Your task to perform on an android device: turn off notifications settings in the gmail app Image 0: 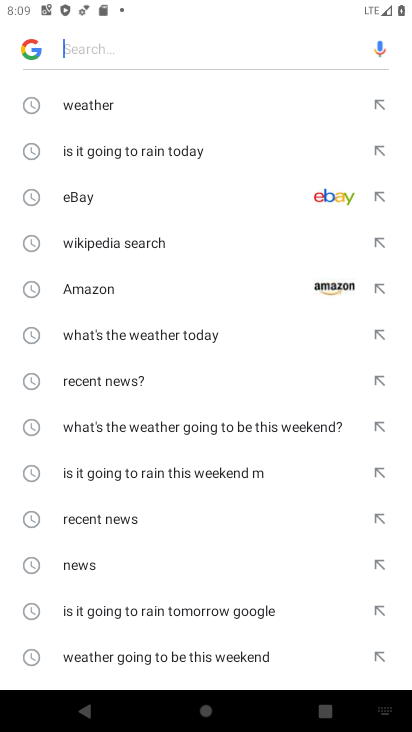
Step 0: press home button
Your task to perform on an android device: turn off notifications settings in the gmail app Image 1: 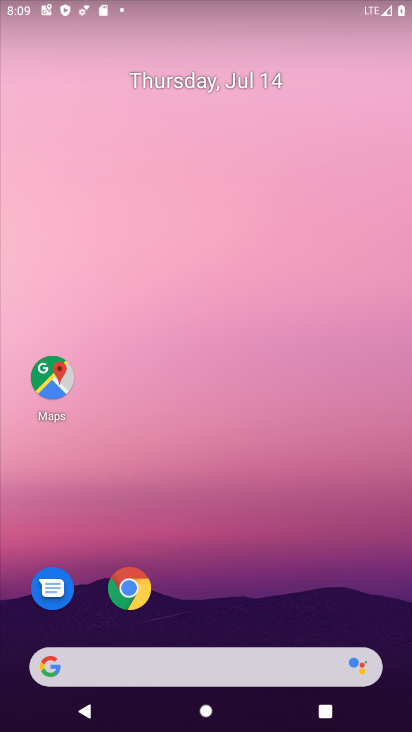
Step 1: drag from (392, 646) to (185, 59)
Your task to perform on an android device: turn off notifications settings in the gmail app Image 2: 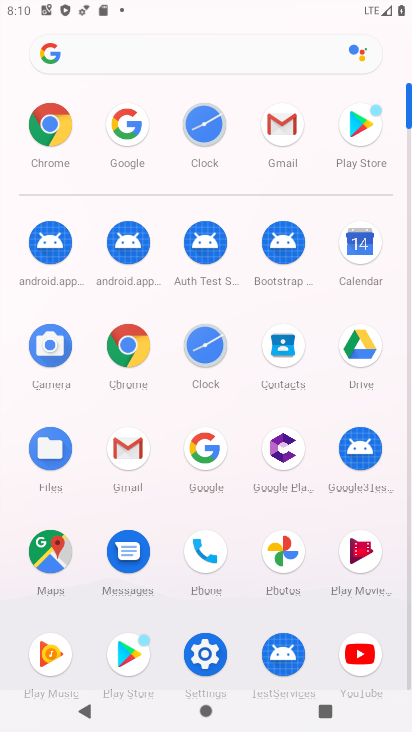
Step 2: click (134, 457)
Your task to perform on an android device: turn off notifications settings in the gmail app Image 3: 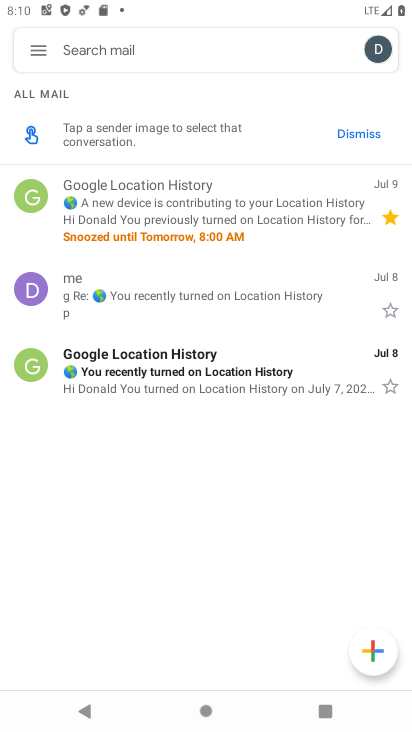
Step 3: click (34, 38)
Your task to perform on an android device: turn off notifications settings in the gmail app Image 4: 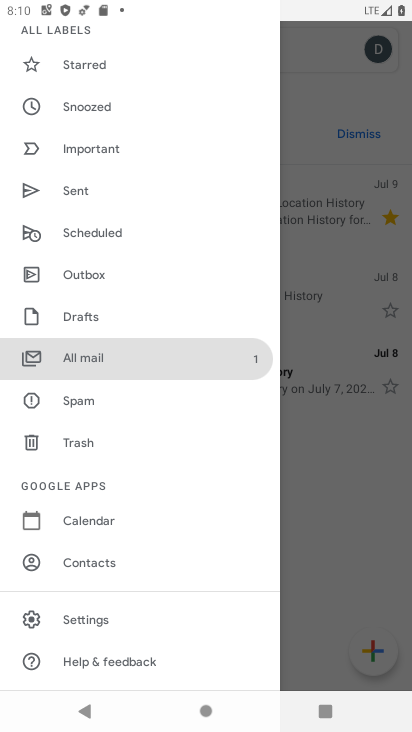
Step 4: click (116, 618)
Your task to perform on an android device: turn off notifications settings in the gmail app Image 5: 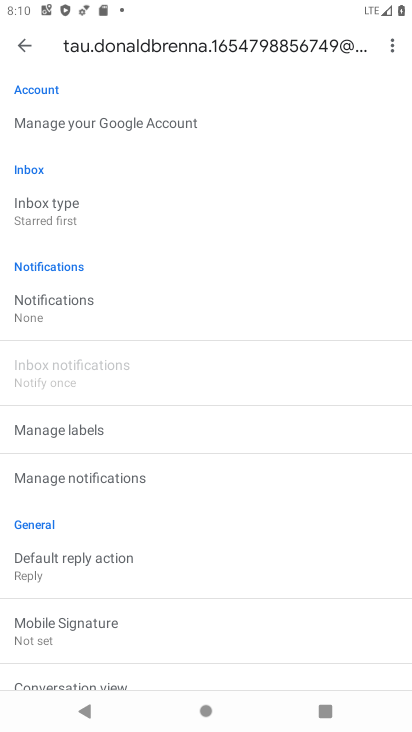
Step 5: click (64, 311)
Your task to perform on an android device: turn off notifications settings in the gmail app Image 6: 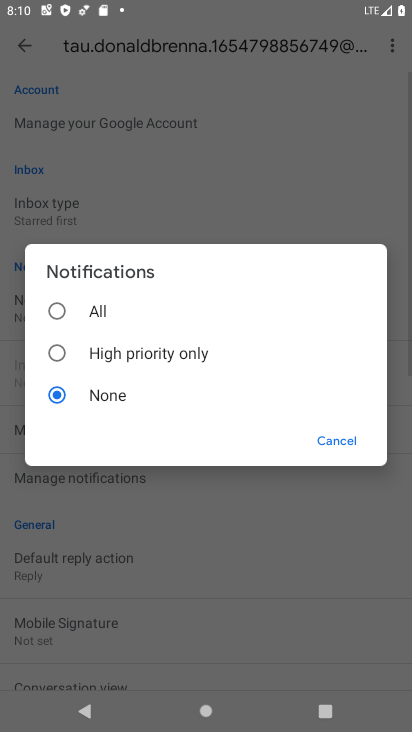
Step 6: task complete